Your task to perform on an android device: Search for sushi restaurants on Maps Image 0: 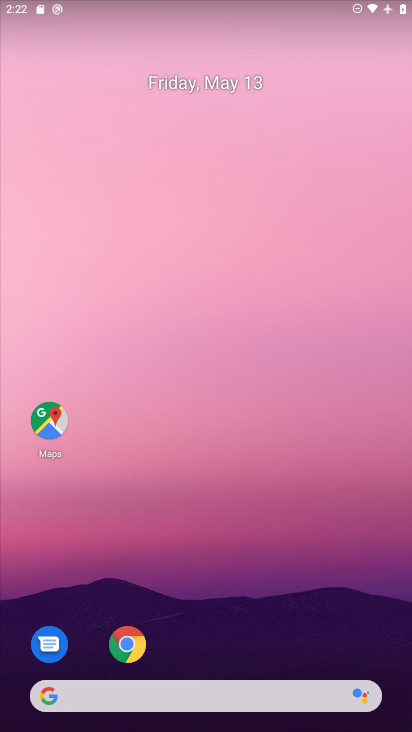
Step 0: drag from (365, 647) to (215, 32)
Your task to perform on an android device: Search for sushi restaurants on Maps Image 1: 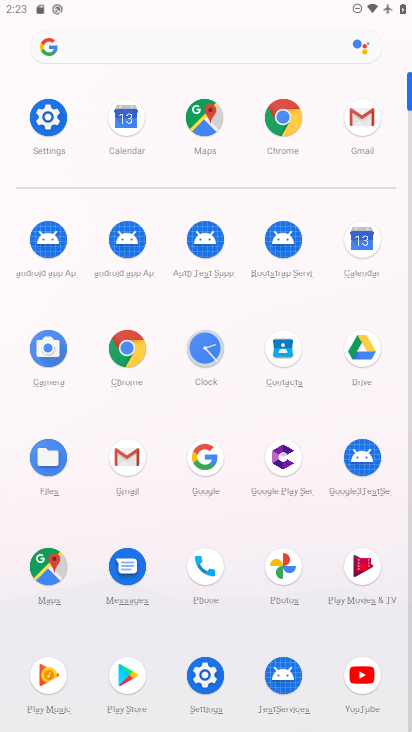
Step 1: click (41, 569)
Your task to perform on an android device: Search for sushi restaurants on Maps Image 2: 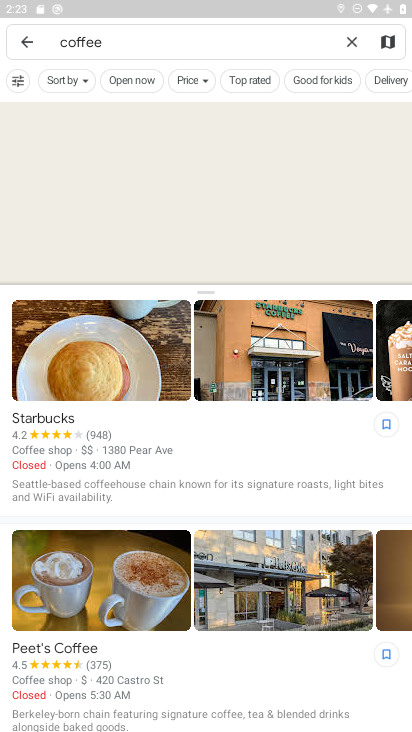
Step 2: click (350, 44)
Your task to perform on an android device: Search for sushi restaurants on Maps Image 3: 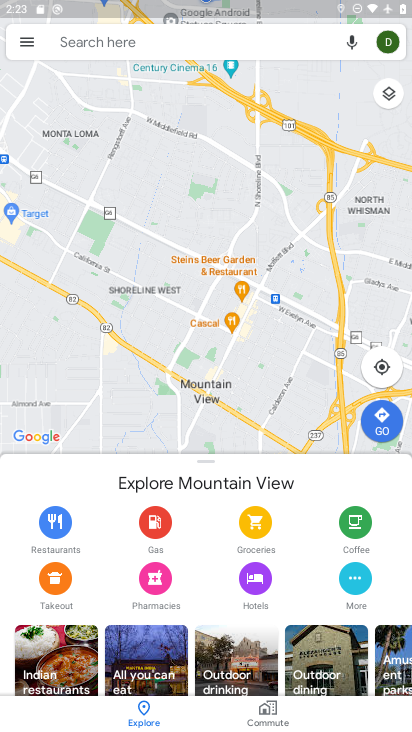
Step 3: click (229, 35)
Your task to perform on an android device: Search for sushi restaurants on Maps Image 4: 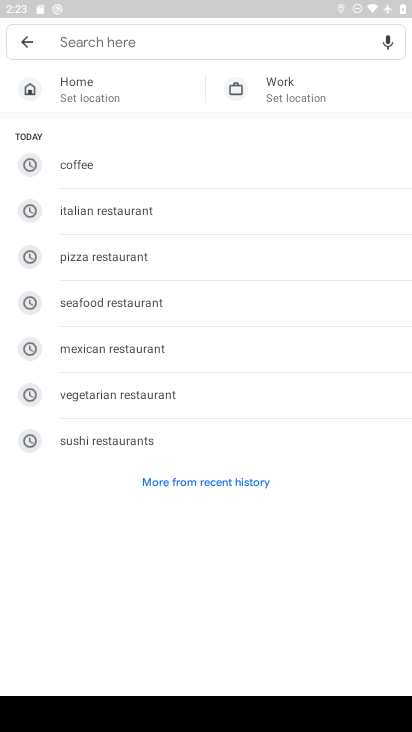
Step 4: click (113, 49)
Your task to perform on an android device: Search for sushi restaurants on Maps Image 5: 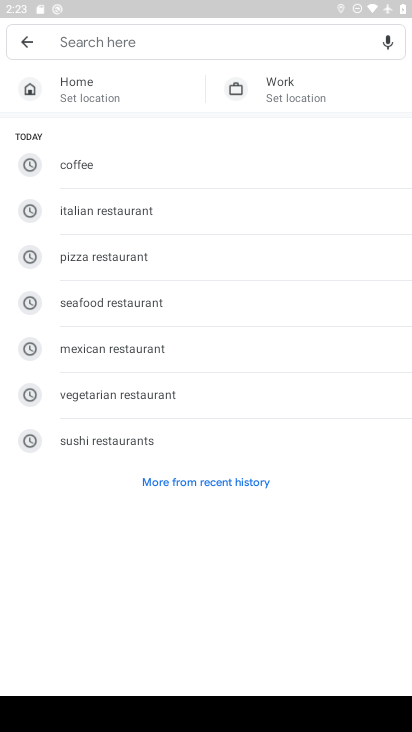
Step 5: click (121, 432)
Your task to perform on an android device: Search for sushi restaurants on Maps Image 6: 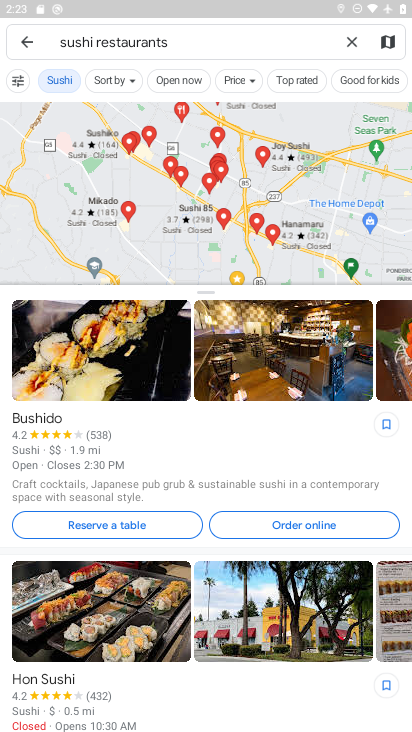
Step 6: task complete